Your task to perform on an android device: Go to Reddit.com Image 0: 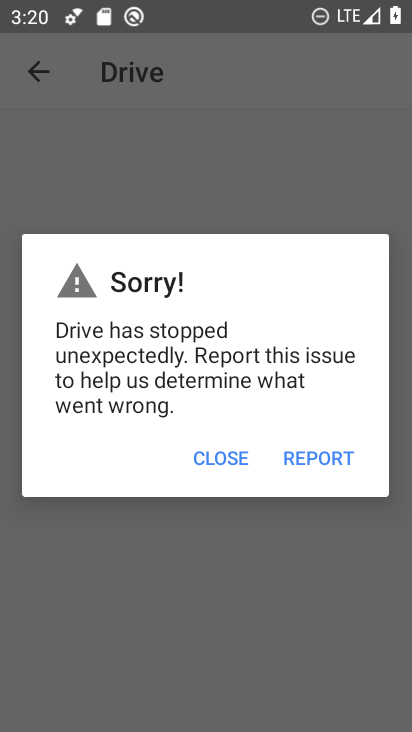
Step 0: press home button
Your task to perform on an android device: Go to Reddit.com Image 1: 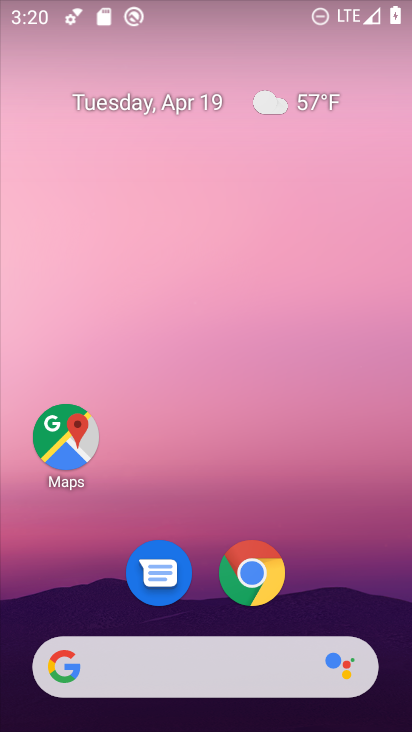
Step 1: click (272, 596)
Your task to perform on an android device: Go to Reddit.com Image 2: 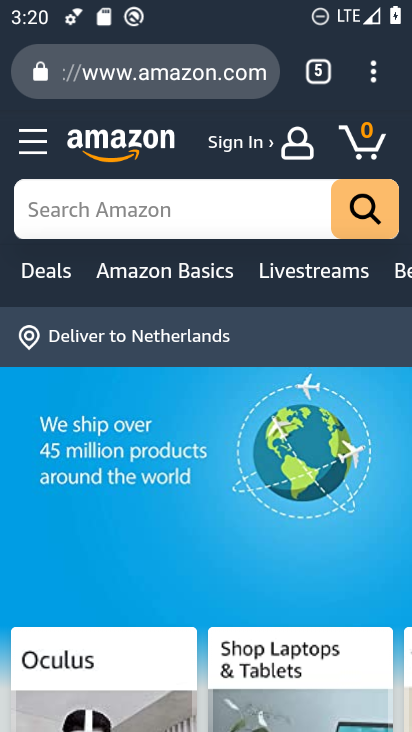
Step 2: click (242, 78)
Your task to perform on an android device: Go to Reddit.com Image 3: 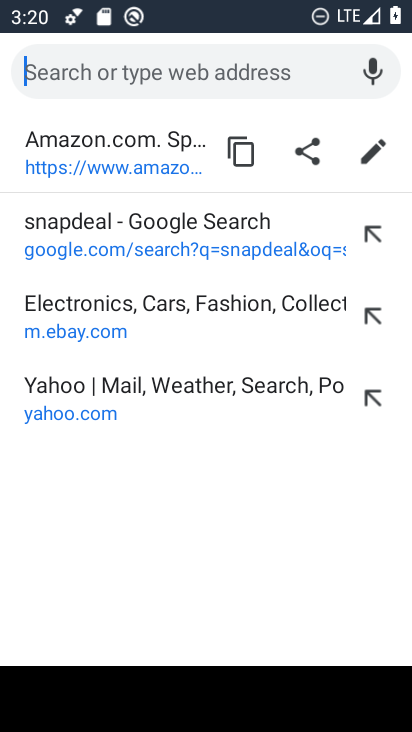
Step 3: type "reddit.com"
Your task to perform on an android device: Go to Reddit.com Image 4: 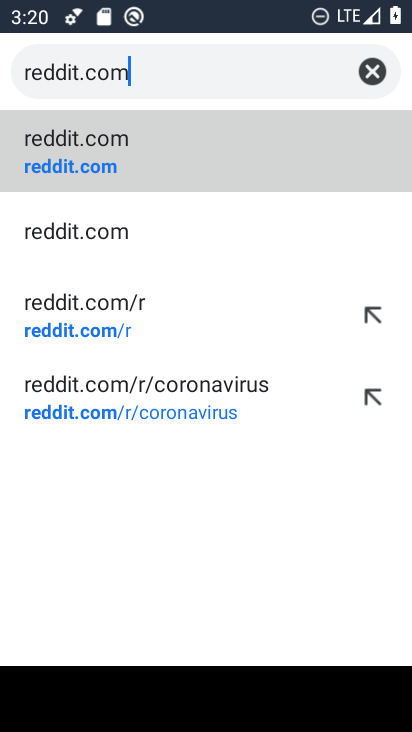
Step 4: click (67, 167)
Your task to perform on an android device: Go to Reddit.com Image 5: 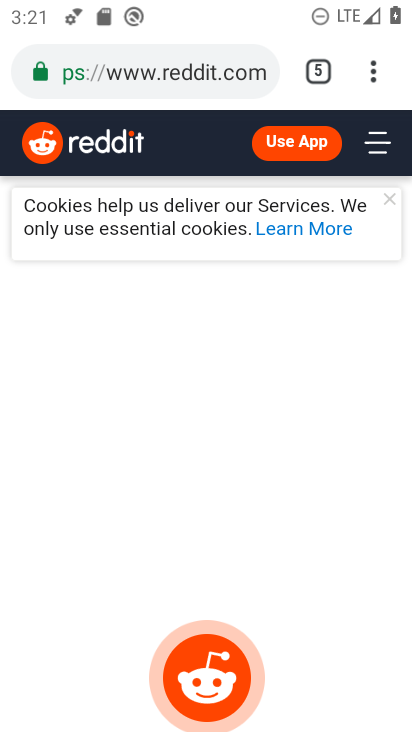
Step 5: task complete